Your task to perform on an android device: open sync settings in chrome Image 0: 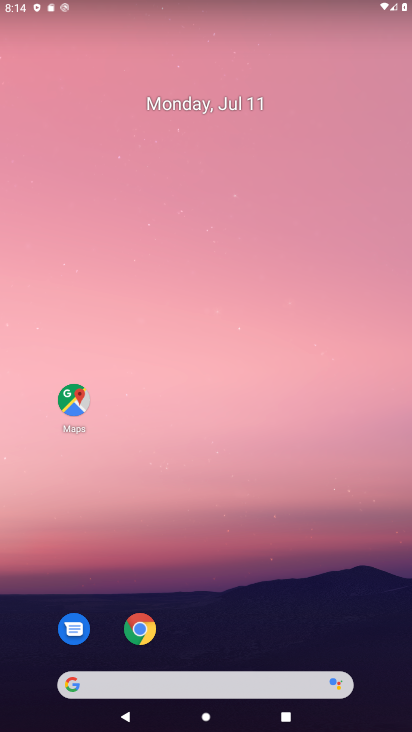
Step 0: click (138, 633)
Your task to perform on an android device: open sync settings in chrome Image 1: 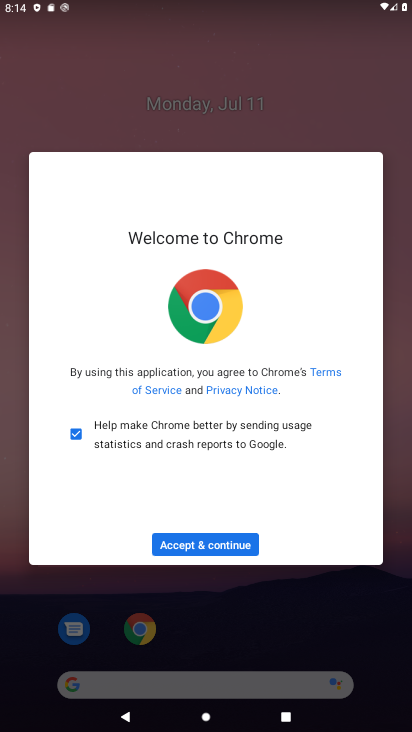
Step 1: click (190, 548)
Your task to perform on an android device: open sync settings in chrome Image 2: 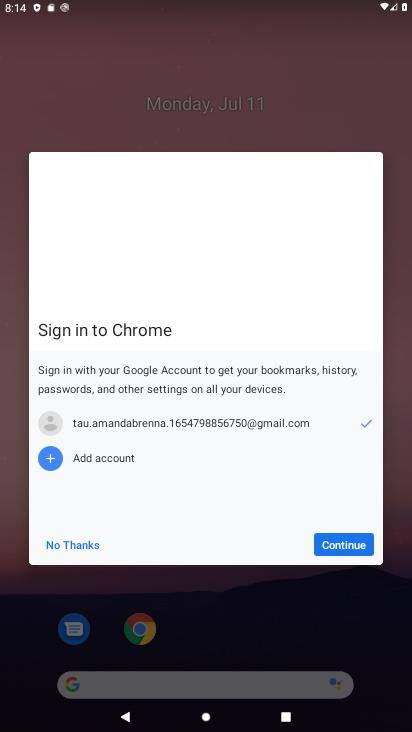
Step 2: click (190, 548)
Your task to perform on an android device: open sync settings in chrome Image 3: 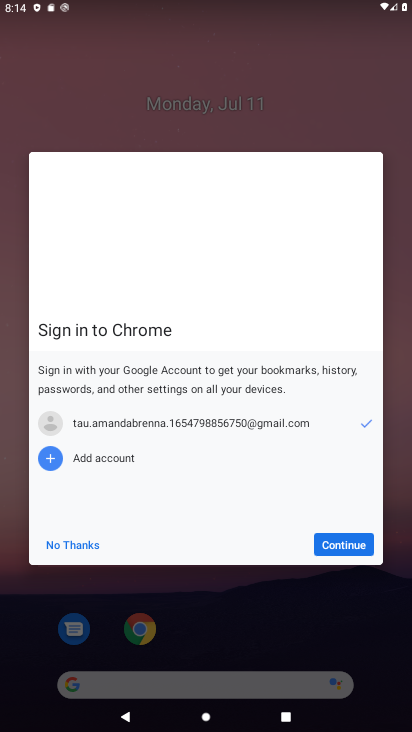
Step 3: click (329, 552)
Your task to perform on an android device: open sync settings in chrome Image 4: 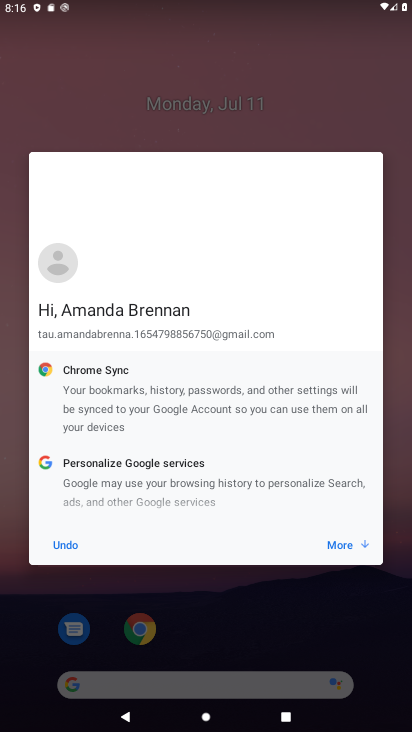
Step 4: click (334, 549)
Your task to perform on an android device: open sync settings in chrome Image 5: 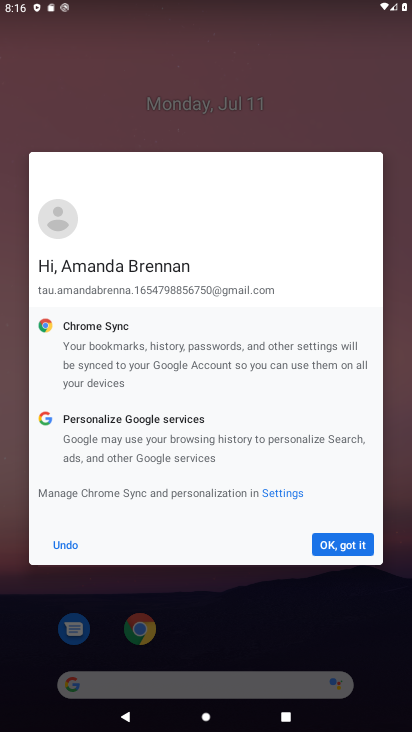
Step 5: click (341, 545)
Your task to perform on an android device: open sync settings in chrome Image 6: 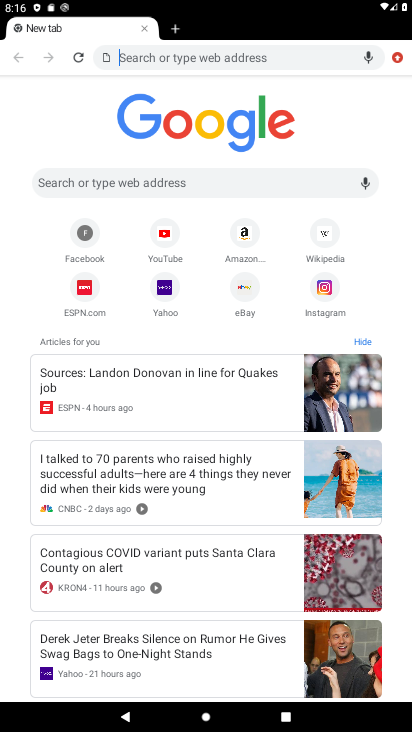
Step 6: click (390, 61)
Your task to perform on an android device: open sync settings in chrome Image 7: 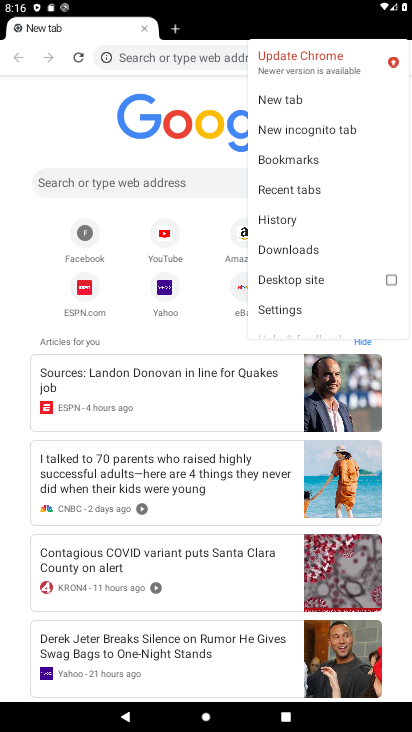
Step 7: click (286, 315)
Your task to perform on an android device: open sync settings in chrome Image 8: 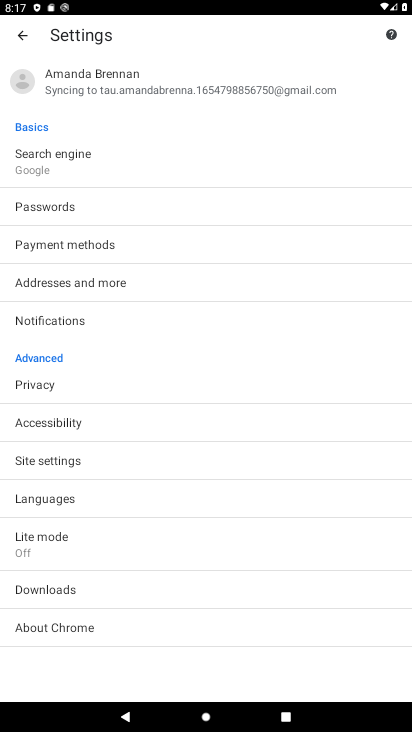
Step 8: click (103, 72)
Your task to perform on an android device: open sync settings in chrome Image 9: 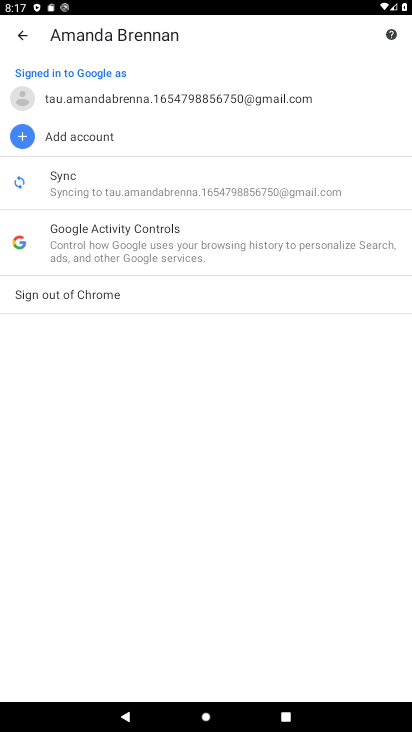
Step 9: click (68, 187)
Your task to perform on an android device: open sync settings in chrome Image 10: 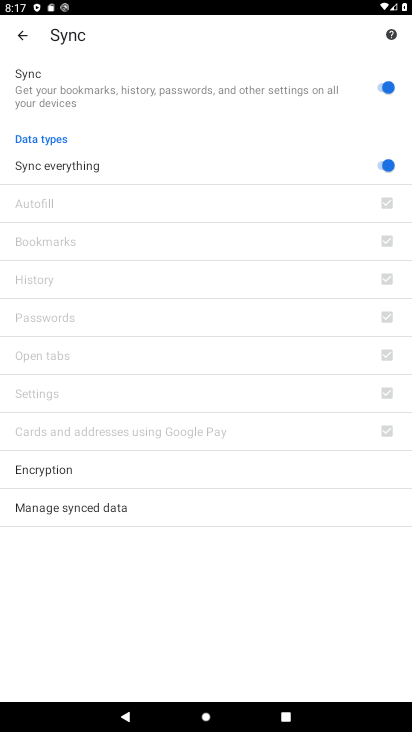
Step 10: task complete